Your task to perform on an android device: Search for Italian restaurants on Maps Image 0: 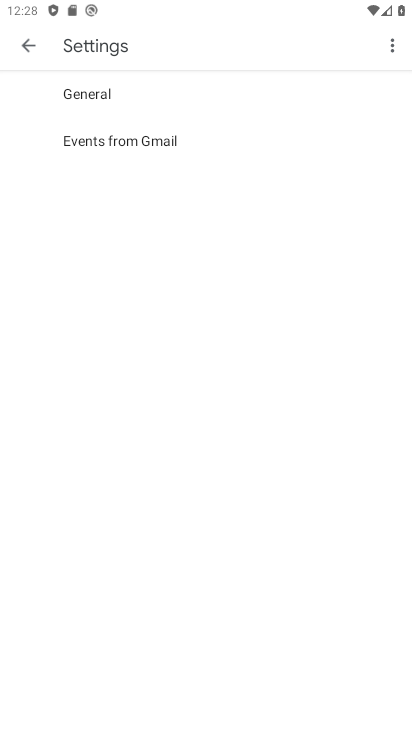
Step 0: press home button
Your task to perform on an android device: Search for Italian restaurants on Maps Image 1: 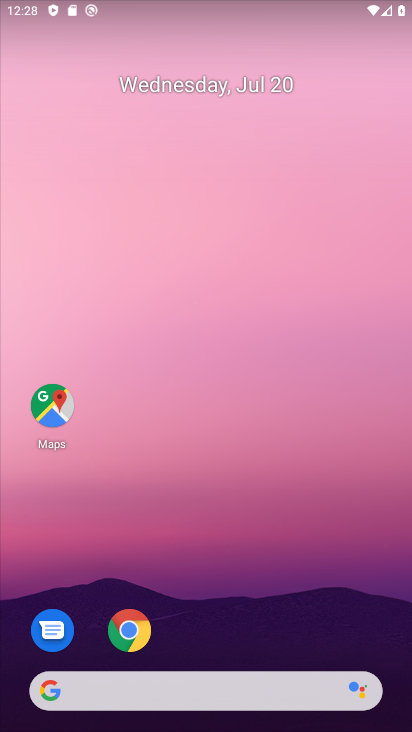
Step 1: click (53, 409)
Your task to perform on an android device: Search for Italian restaurants on Maps Image 2: 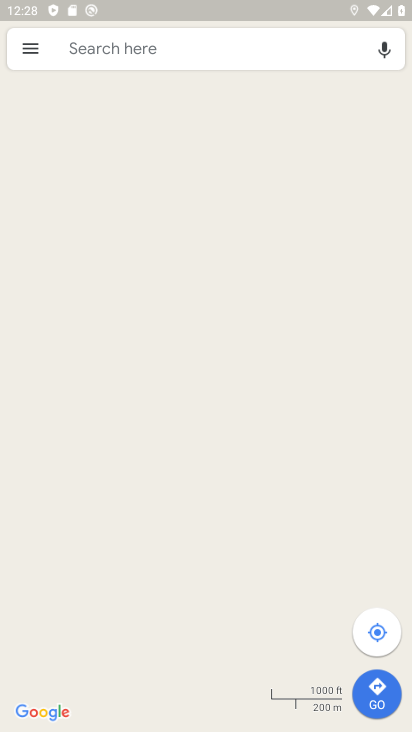
Step 2: click (200, 48)
Your task to perform on an android device: Search for Italian restaurants on Maps Image 3: 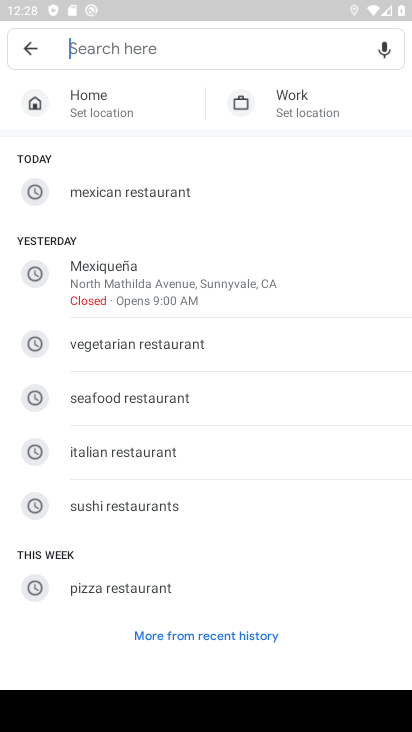
Step 3: type "italian restaurants"
Your task to perform on an android device: Search for Italian restaurants on Maps Image 4: 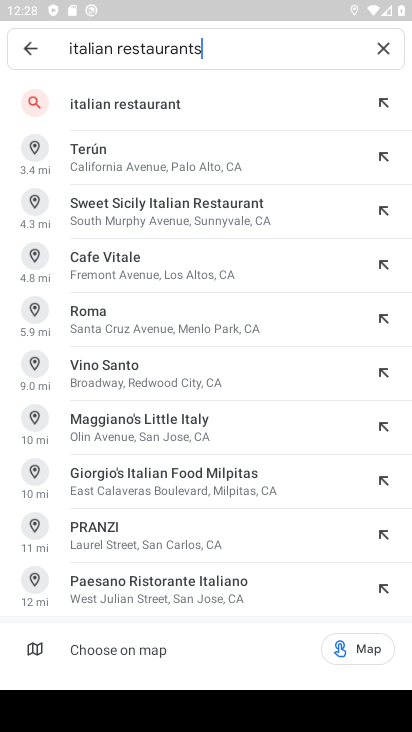
Step 4: click (183, 111)
Your task to perform on an android device: Search for Italian restaurants on Maps Image 5: 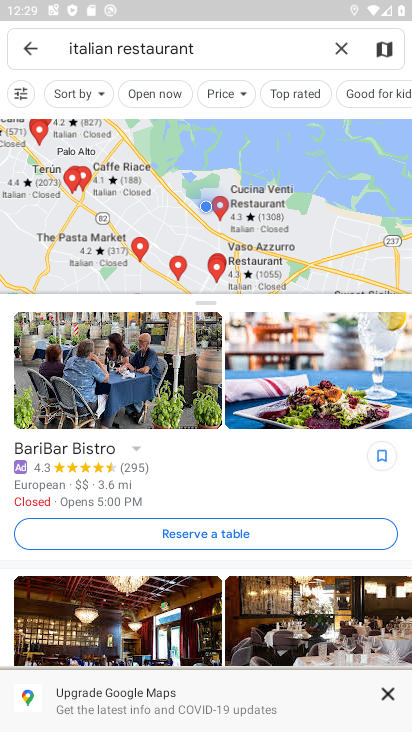
Step 5: task complete